Your task to perform on an android device: turn off javascript in the chrome app Image 0: 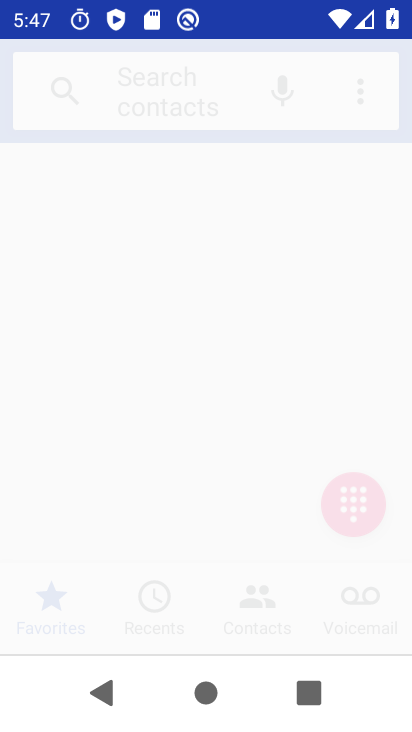
Step 0: drag from (293, 594) to (321, 96)
Your task to perform on an android device: turn off javascript in the chrome app Image 1: 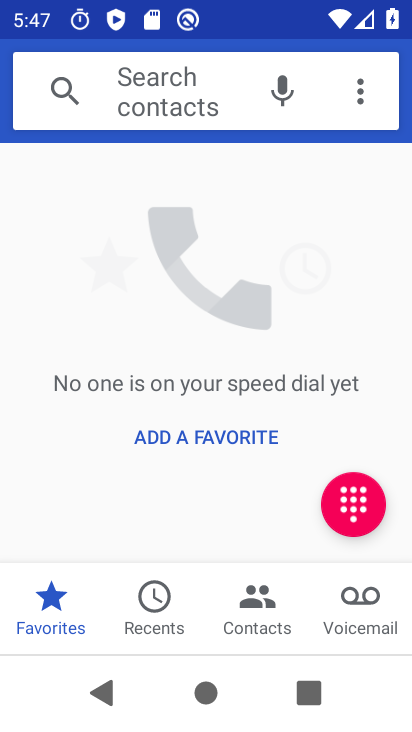
Step 1: press home button
Your task to perform on an android device: turn off javascript in the chrome app Image 2: 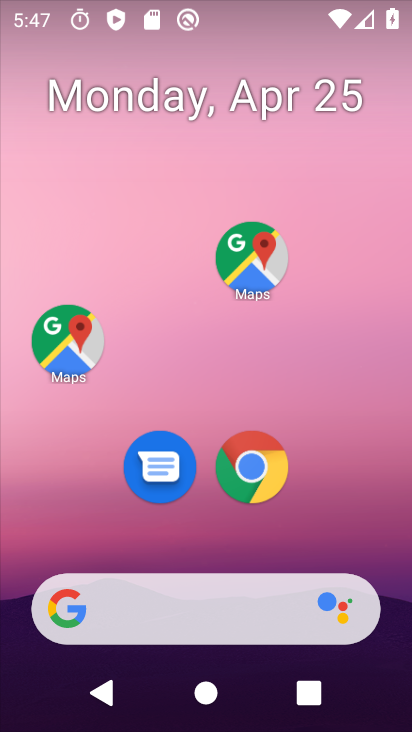
Step 2: drag from (316, 481) to (340, 0)
Your task to perform on an android device: turn off javascript in the chrome app Image 3: 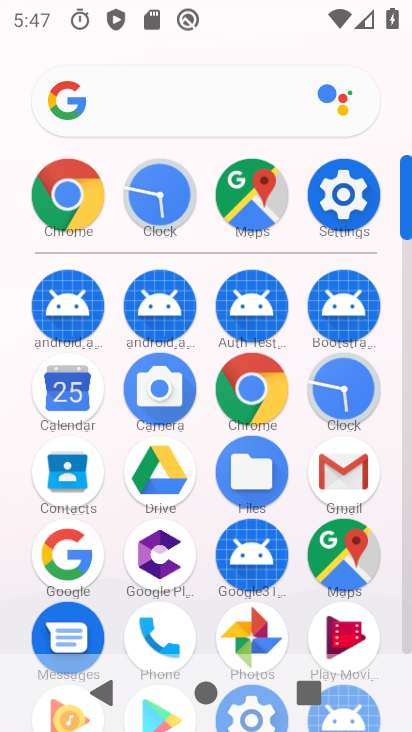
Step 3: click (277, 426)
Your task to perform on an android device: turn off javascript in the chrome app Image 4: 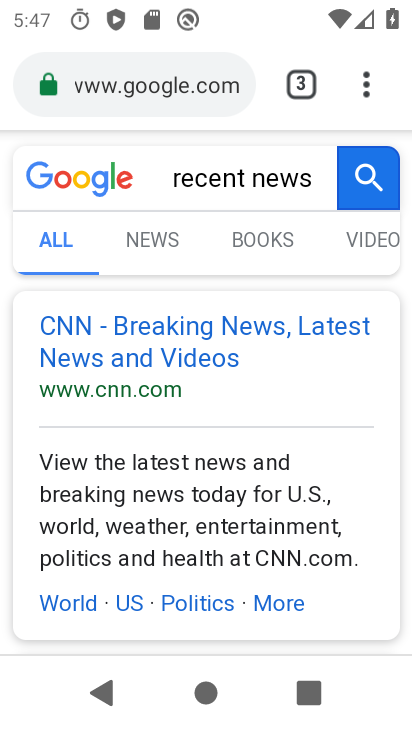
Step 4: drag from (357, 77) to (155, 531)
Your task to perform on an android device: turn off javascript in the chrome app Image 5: 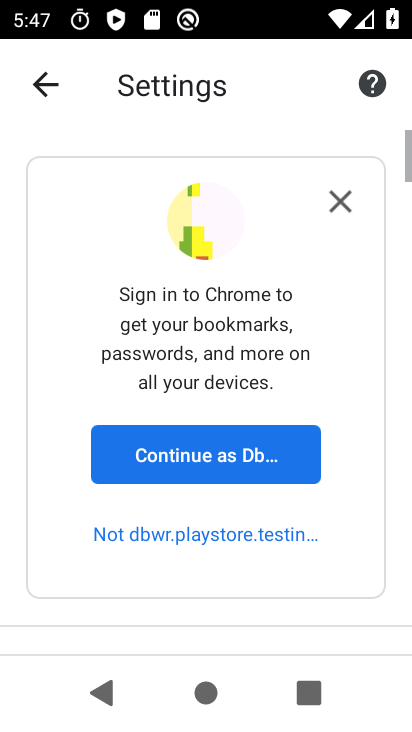
Step 5: drag from (255, 612) to (237, 78)
Your task to perform on an android device: turn off javascript in the chrome app Image 6: 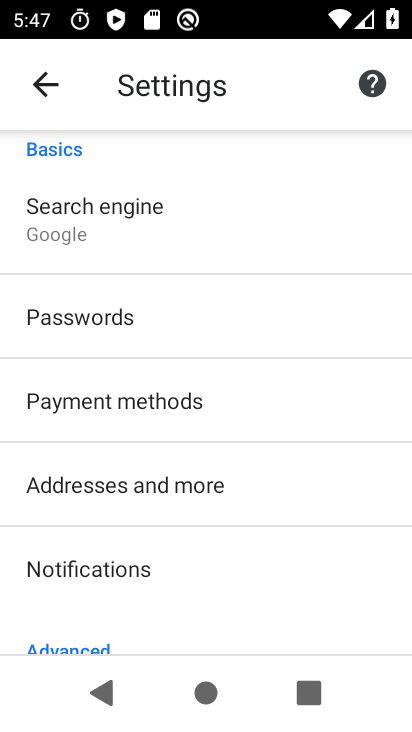
Step 6: drag from (141, 536) to (199, 145)
Your task to perform on an android device: turn off javascript in the chrome app Image 7: 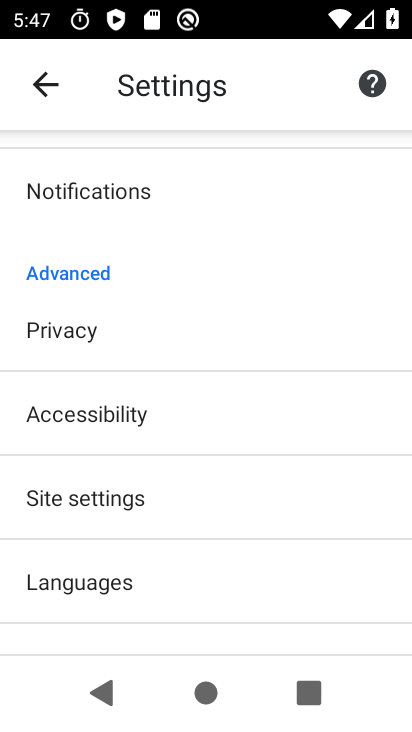
Step 7: click (167, 499)
Your task to perform on an android device: turn off javascript in the chrome app Image 8: 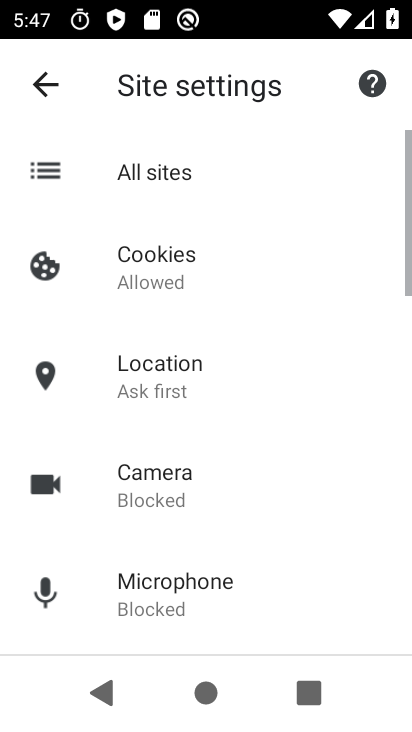
Step 8: drag from (259, 631) to (295, 105)
Your task to perform on an android device: turn off javascript in the chrome app Image 9: 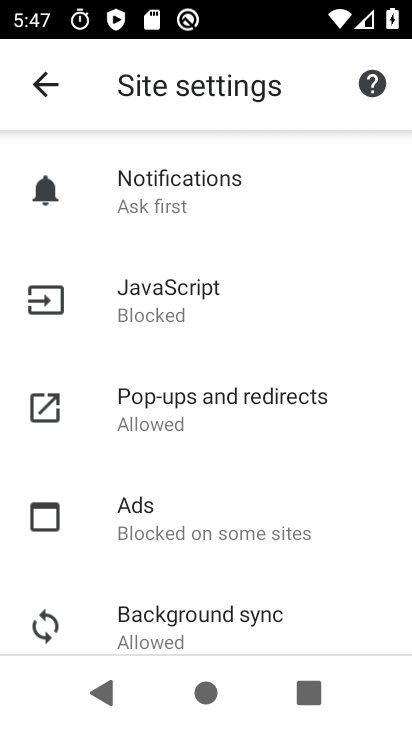
Step 9: click (254, 319)
Your task to perform on an android device: turn off javascript in the chrome app Image 10: 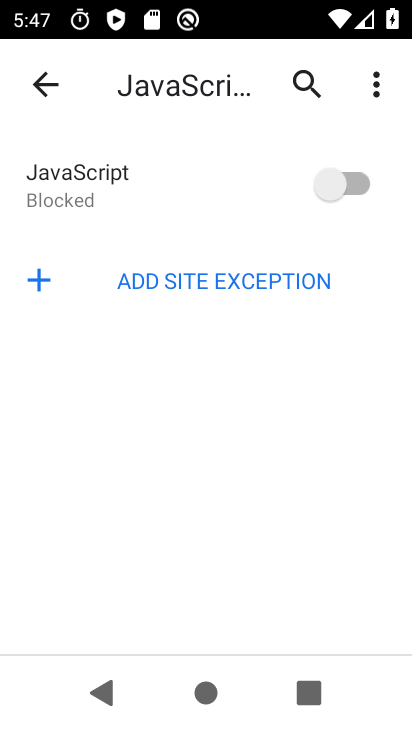
Step 10: task complete